Your task to perform on an android device: open app "Pinterest" (install if not already installed) Image 0: 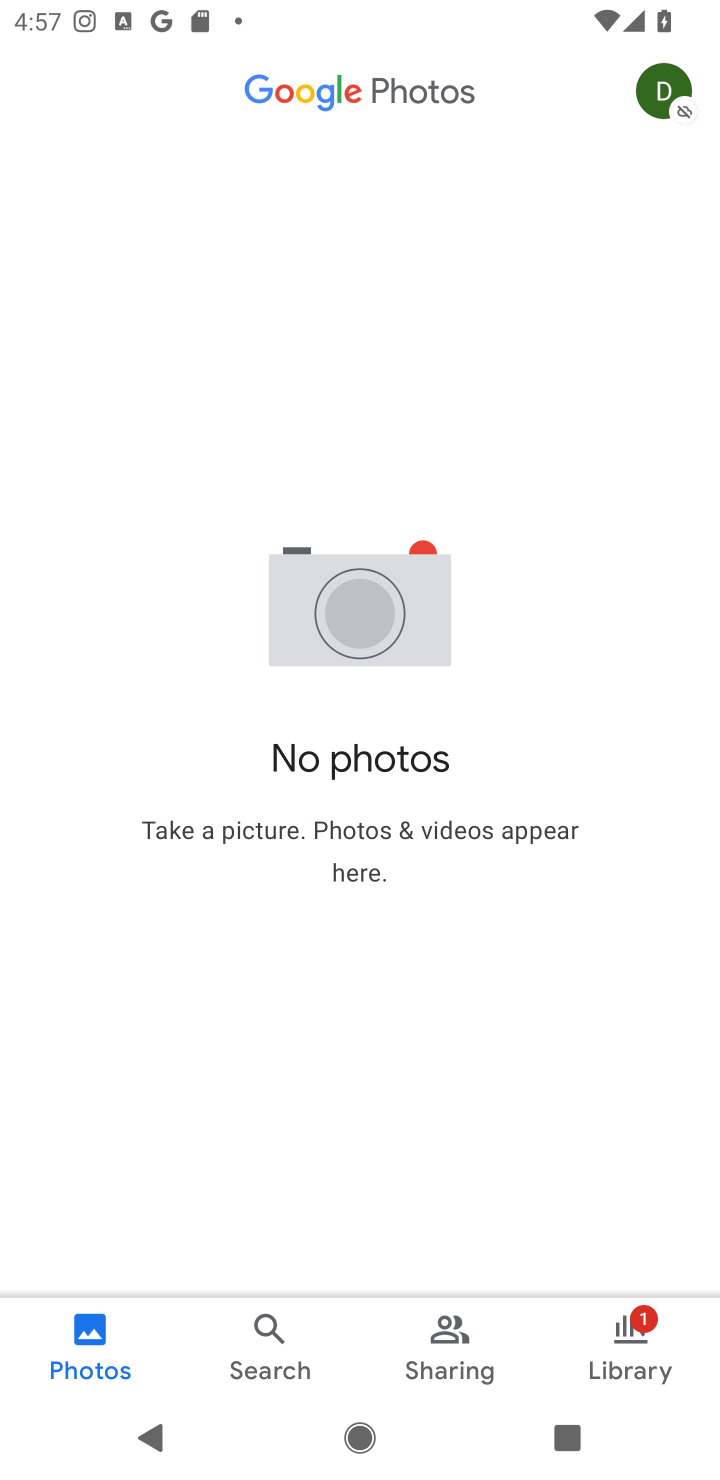
Step 0: press home button
Your task to perform on an android device: open app "Pinterest" (install if not already installed) Image 1: 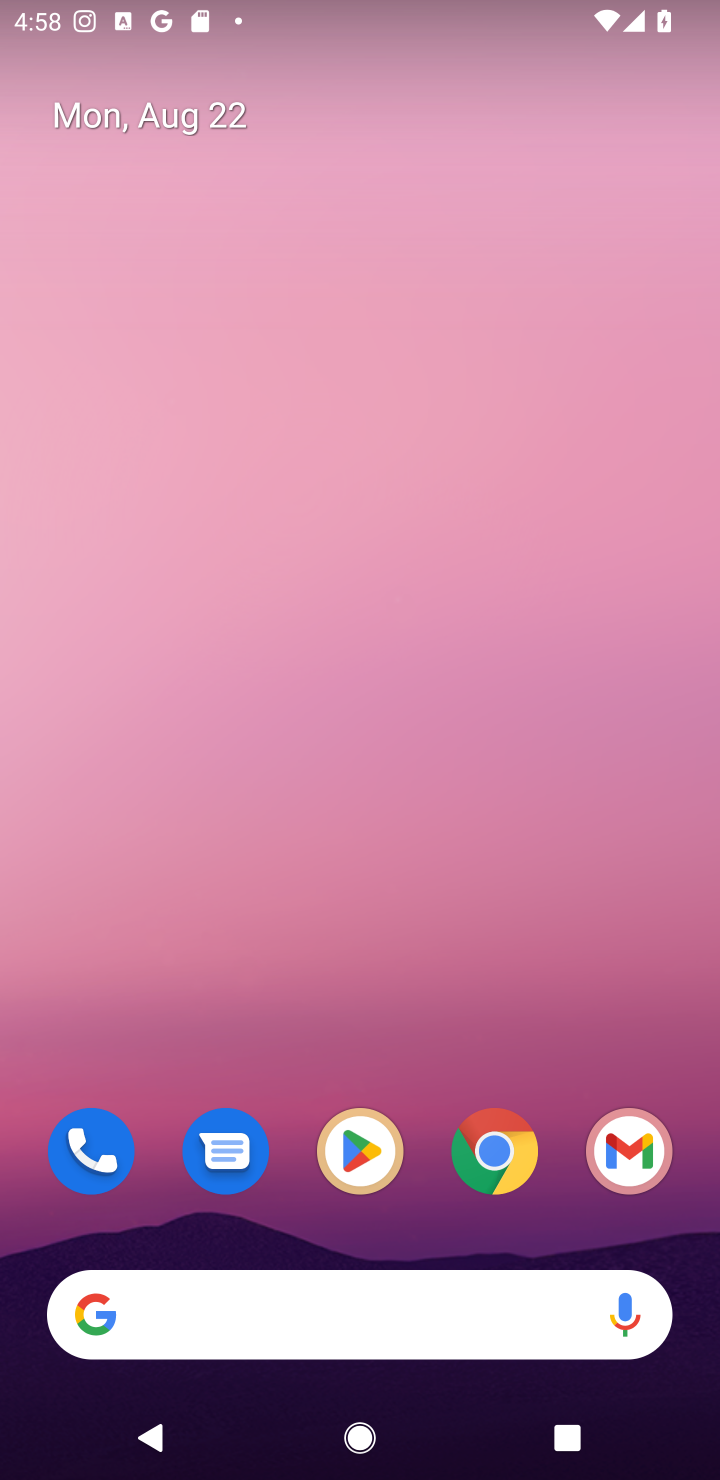
Step 1: click (355, 1152)
Your task to perform on an android device: open app "Pinterest" (install if not already installed) Image 2: 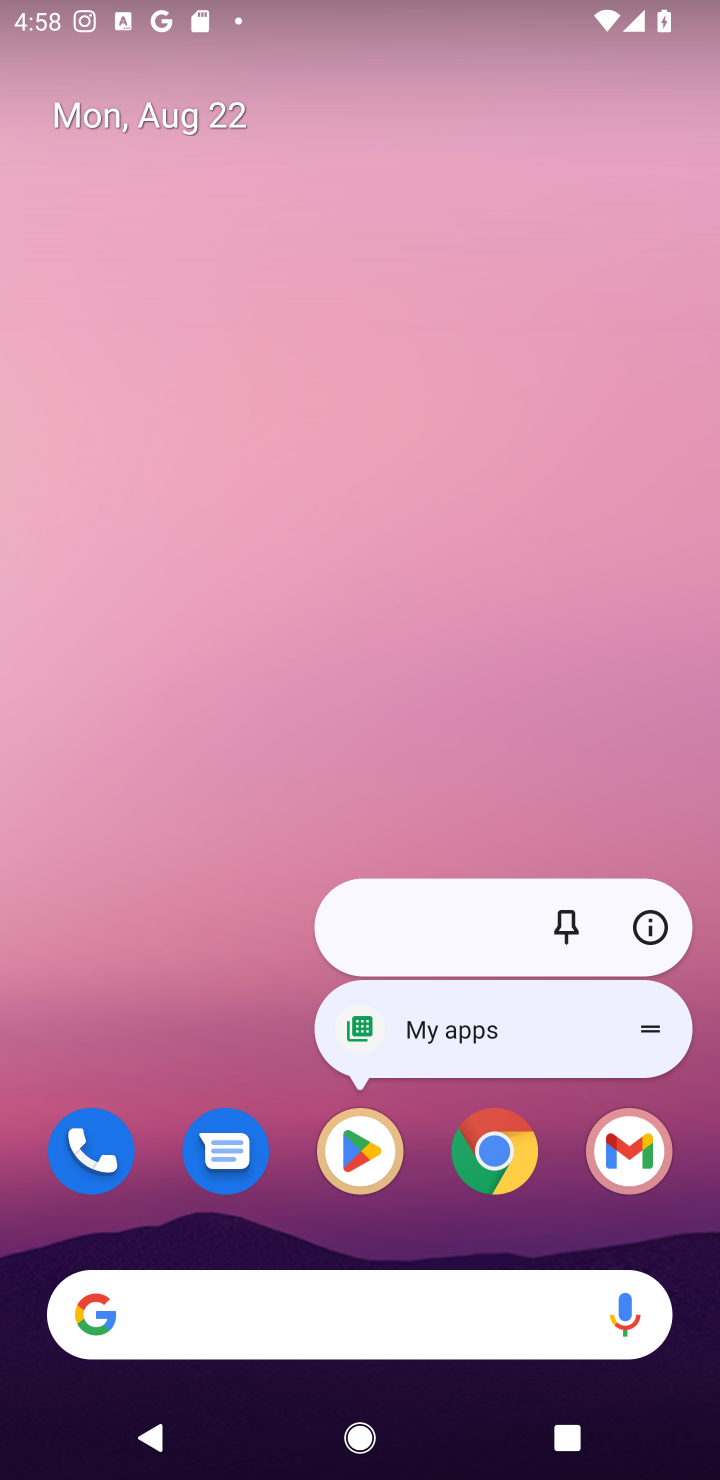
Step 2: click (355, 1158)
Your task to perform on an android device: open app "Pinterest" (install if not already installed) Image 3: 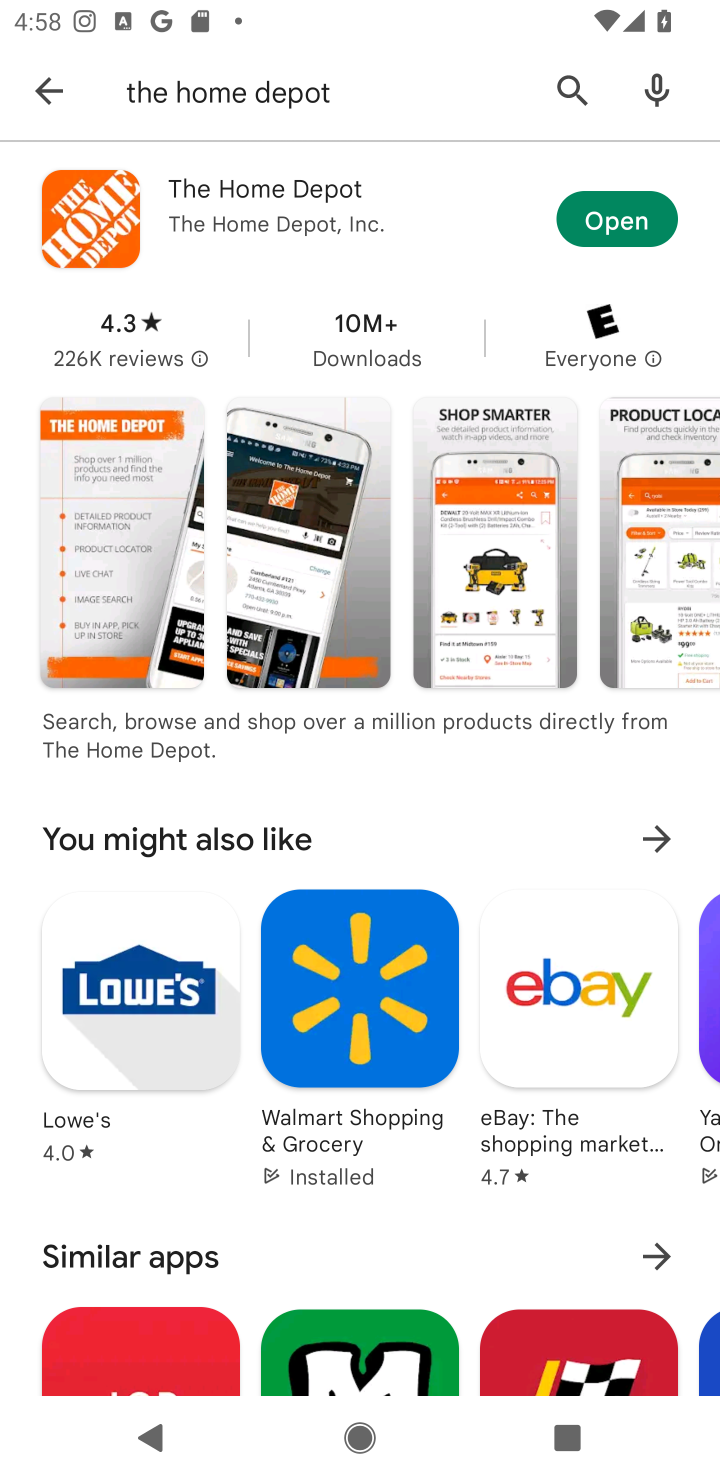
Step 3: click (558, 79)
Your task to perform on an android device: open app "Pinterest" (install if not already installed) Image 4: 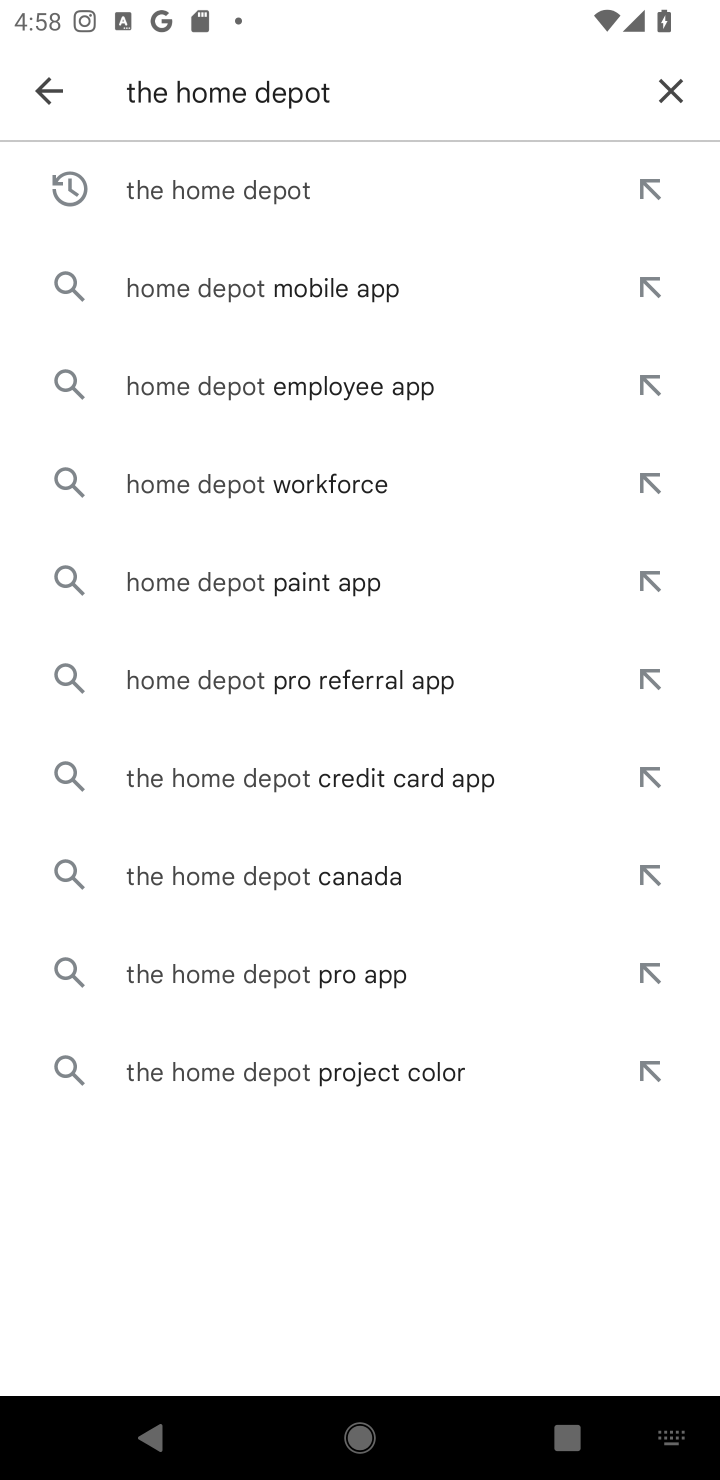
Step 4: click (673, 103)
Your task to perform on an android device: open app "Pinterest" (install if not already installed) Image 5: 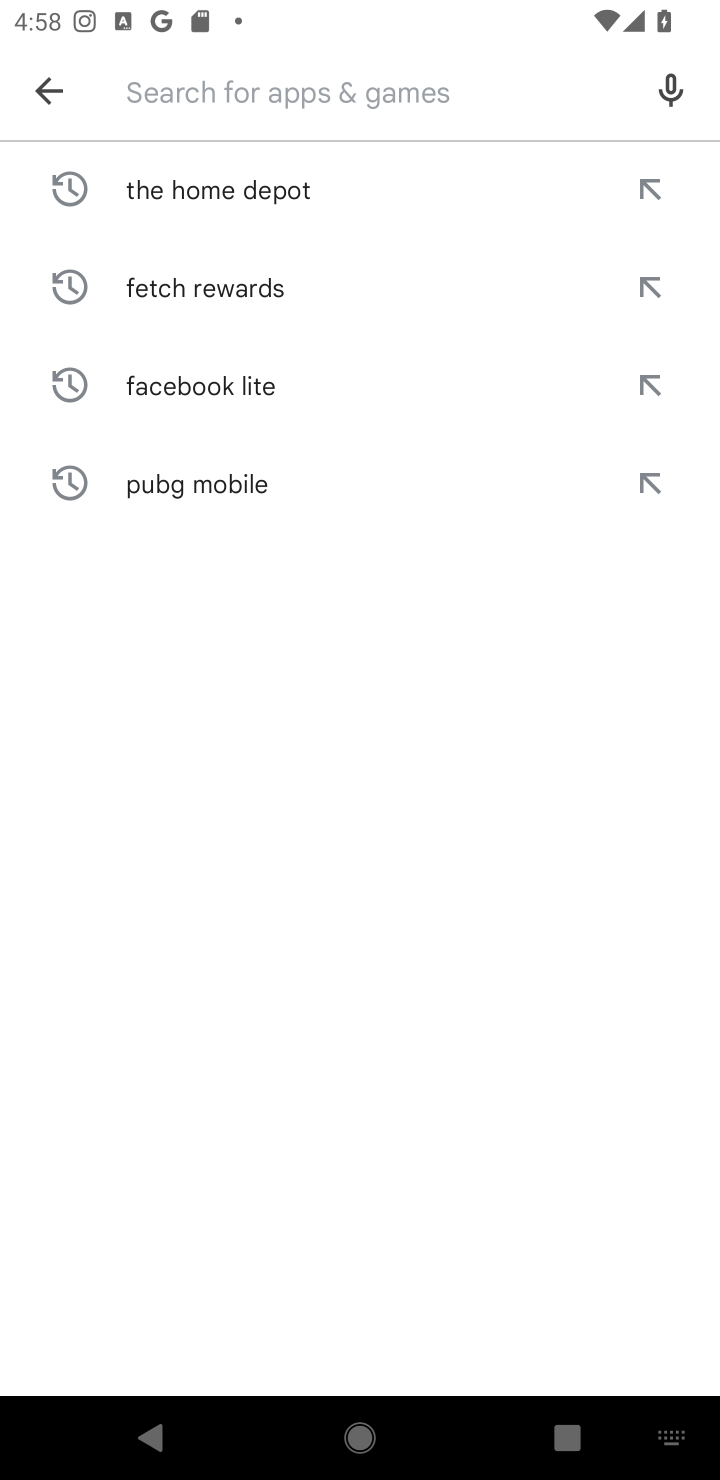
Step 5: type "Pinterest"
Your task to perform on an android device: open app "Pinterest" (install if not already installed) Image 6: 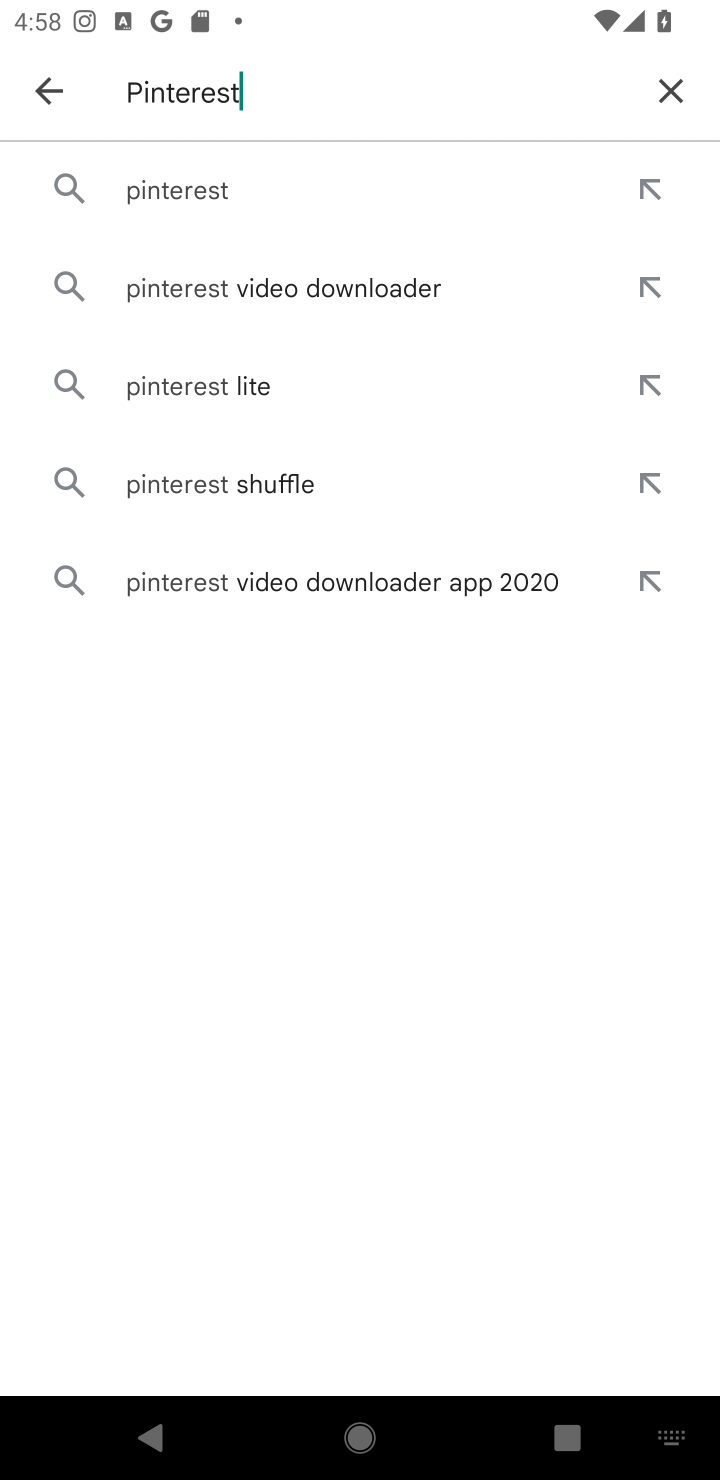
Step 6: click (197, 205)
Your task to perform on an android device: open app "Pinterest" (install if not already installed) Image 7: 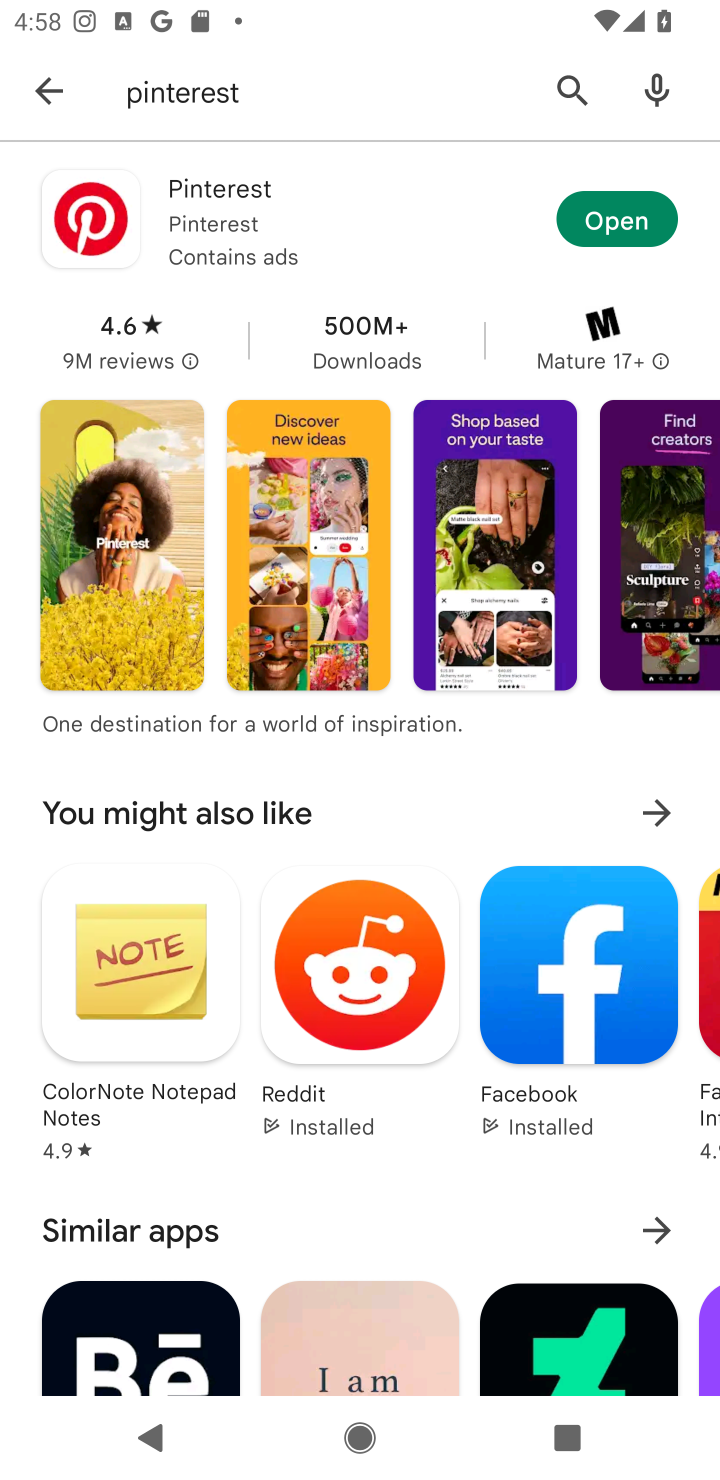
Step 7: click (641, 215)
Your task to perform on an android device: open app "Pinterest" (install if not already installed) Image 8: 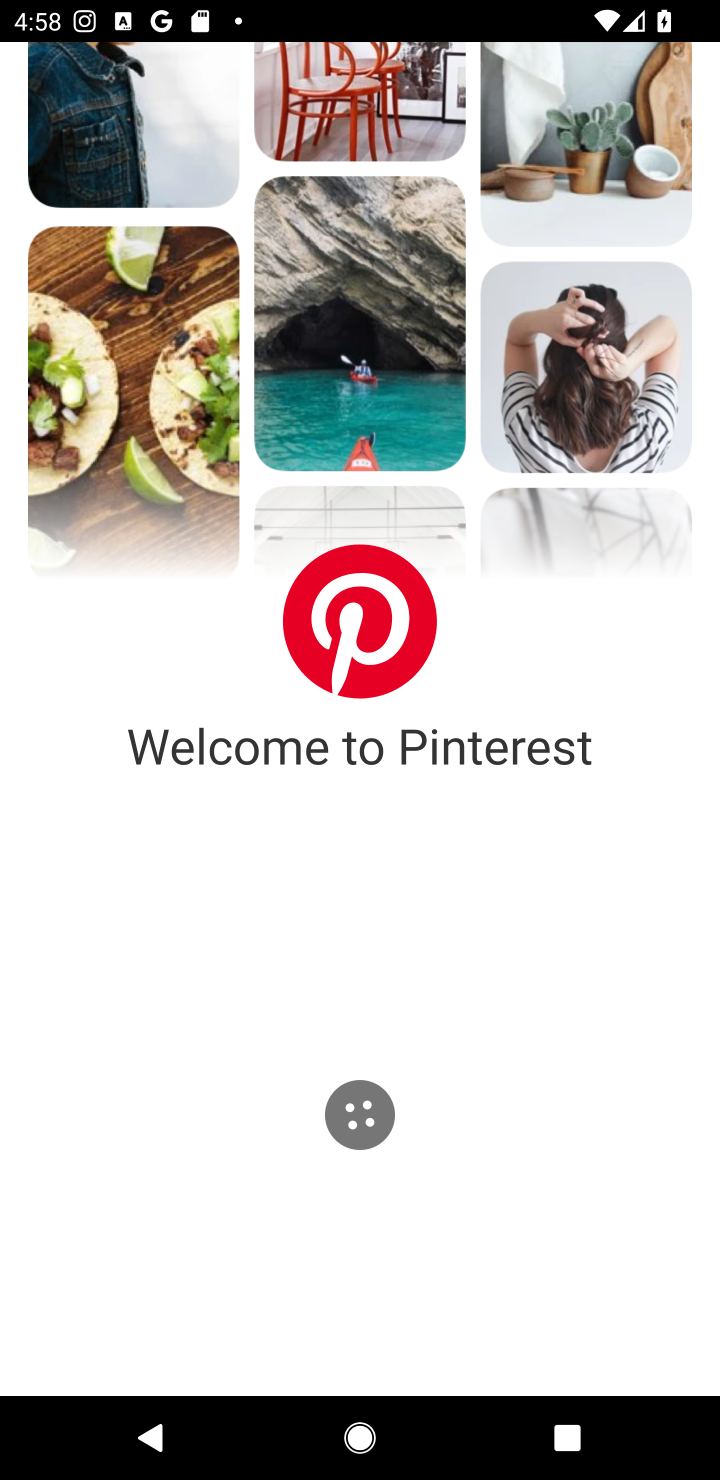
Step 8: task complete